Your task to perform on an android device: What's the news in Peru? Image 0: 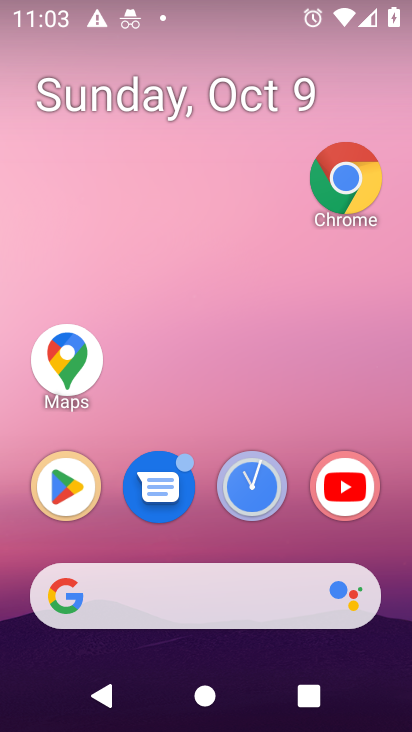
Step 0: drag from (241, 565) to (273, 148)
Your task to perform on an android device: What's the news in Peru? Image 1: 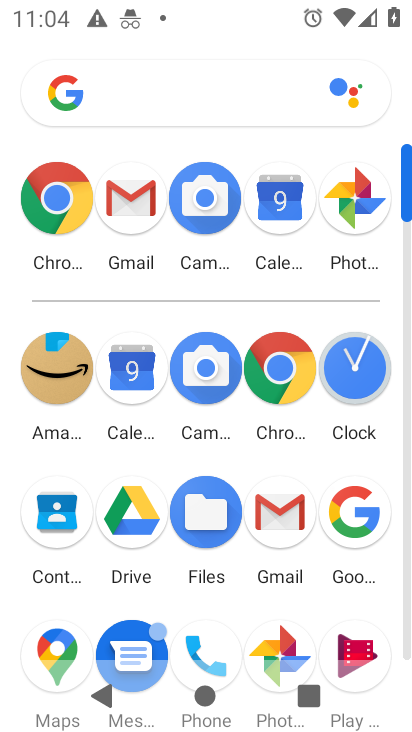
Step 1: click (374, 522)
Your task to perform on an android device: What's the news in Peru? Image 2: 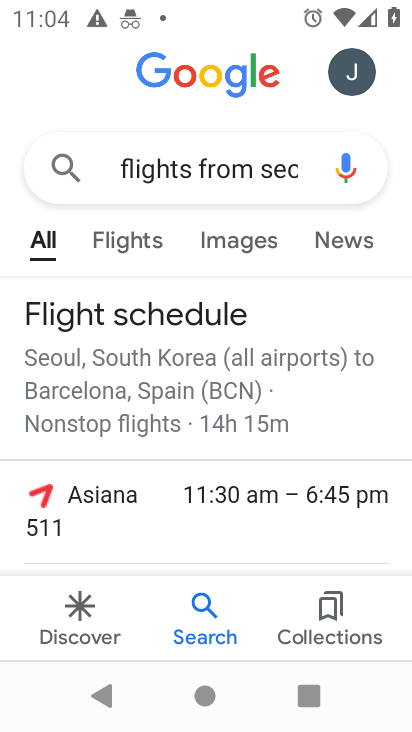
Step 2: click (274, 171)
Your task to perform on an android device: What's the news in Peru? Image 3: 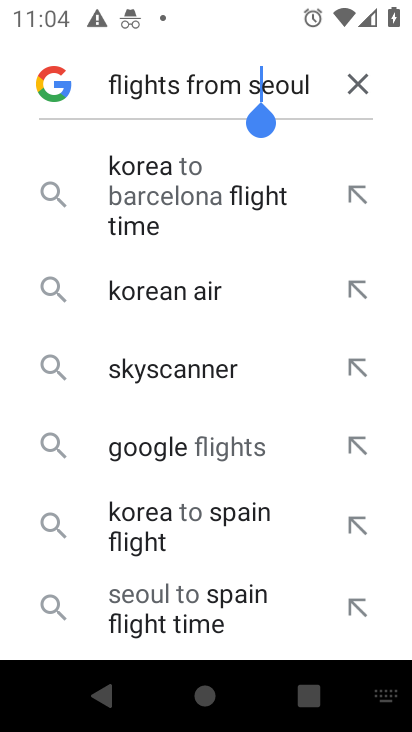
Step 3: click (355, 93)
Your task to perform on an android device: What's the news in Peru? Image 4: 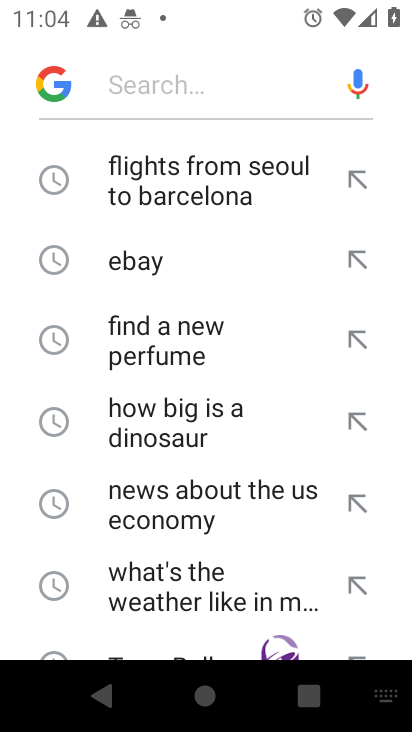
Step 4: type "news in Peru?"
Your task to perform on an android device: What's the news in Peru? Image 5: 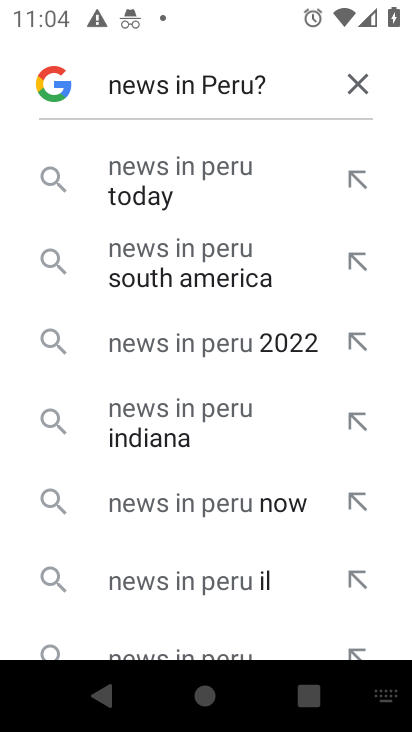
Step 5: click (218, 187)
Your task to perform on an android device: What's the news in Peru? Image 6: 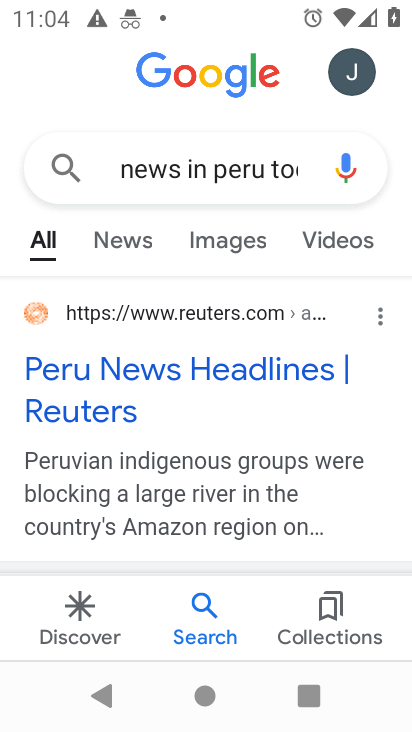
Step 6: click (148, 245)
Your task to perform on an android device: What's the news in Peru? Image 7: 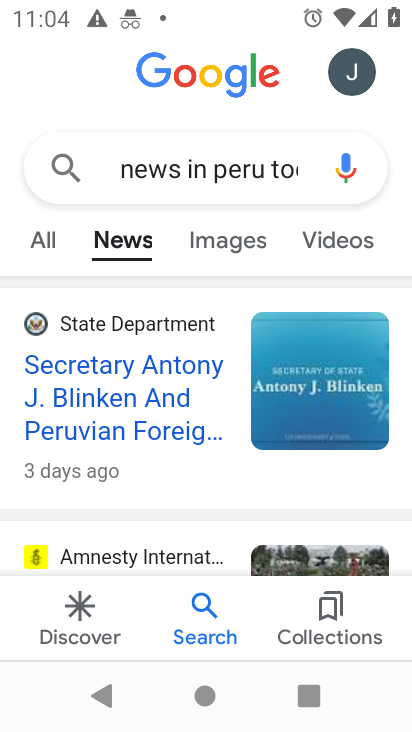
Step 7: task complete